Your task to perform on an android device: Open Chrome and go to settings Image 0: 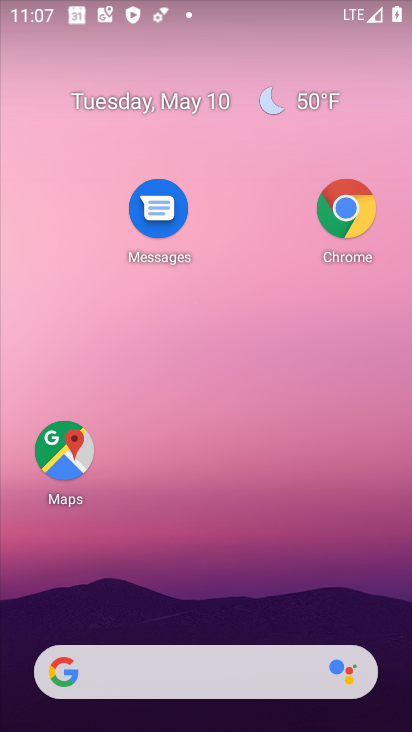
Step 0: click (352, 199)
Your task to perform on an android device: Open Chrome and go to settings Image 1: 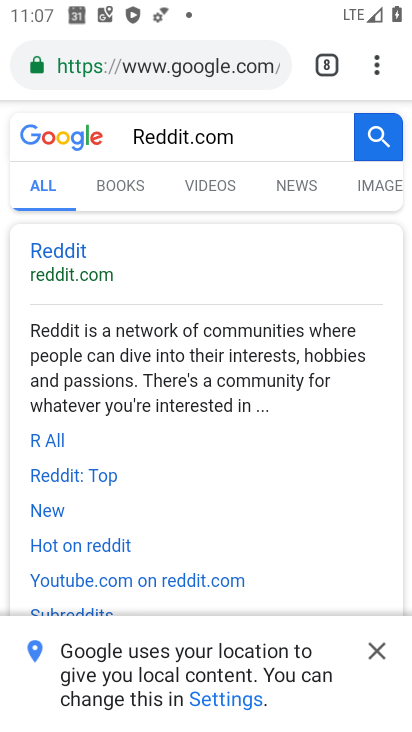
Step 1: click (375, 73)
Your task to perform on an android device: Open Chrome and go to settings Image 2: 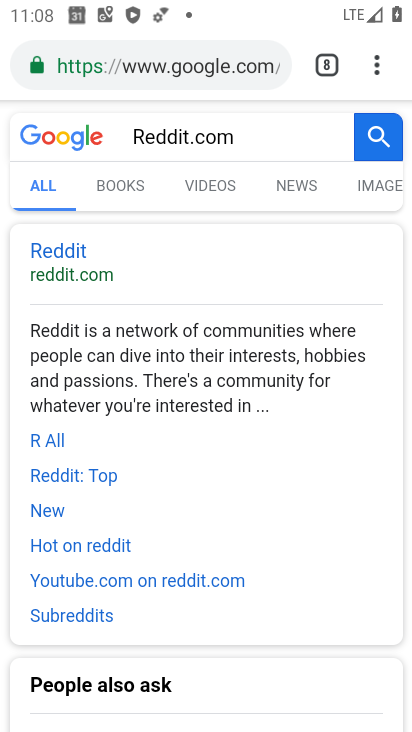
Step 2: click (369, 63)
Your task to perform on an android device: Open Chrome and go to settings Image 3: 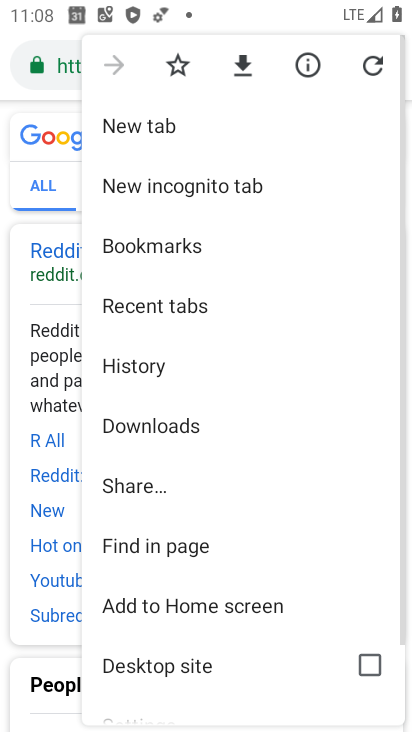
Step 3: drag from (282, 585) to (244, 85)
Your task to perform on an android device: Open Chrome and go to settings Image 4: 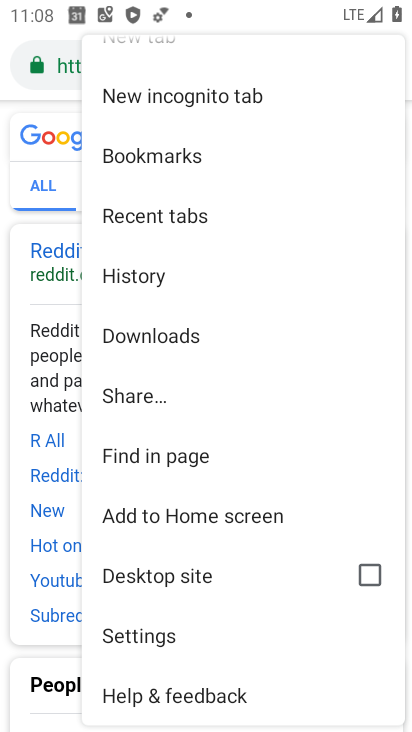
Step 4: click (146, 649)
Your task to perform on an android device: Open Chrome and go to settings Image 5: 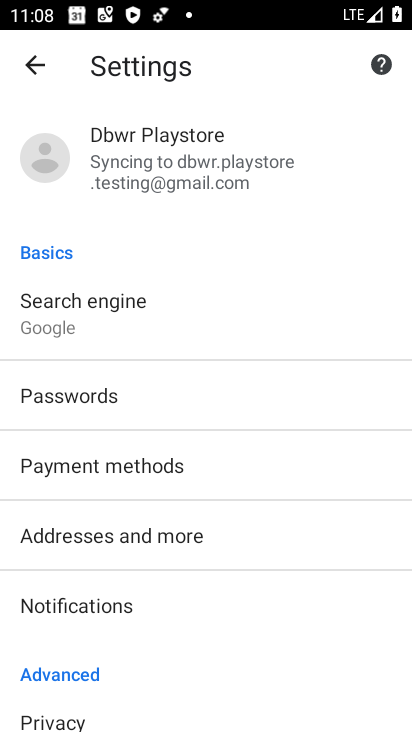
Step 5: task complete